Your task to perform on an android device: Open eBay Image 0: 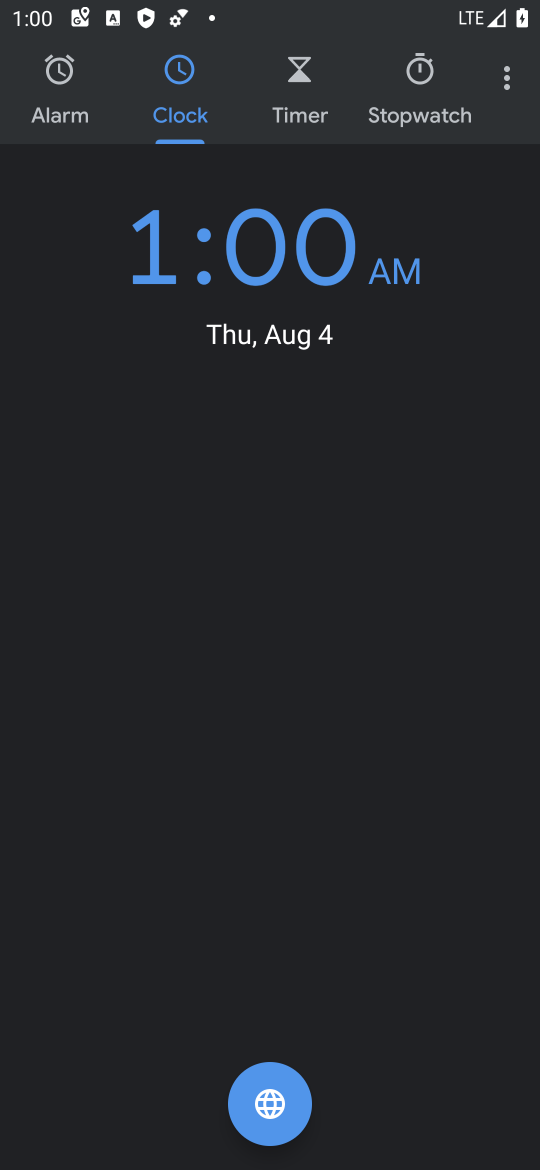
Step 0: press home button
Your task to perform on an android device: Open eBay Image 1: 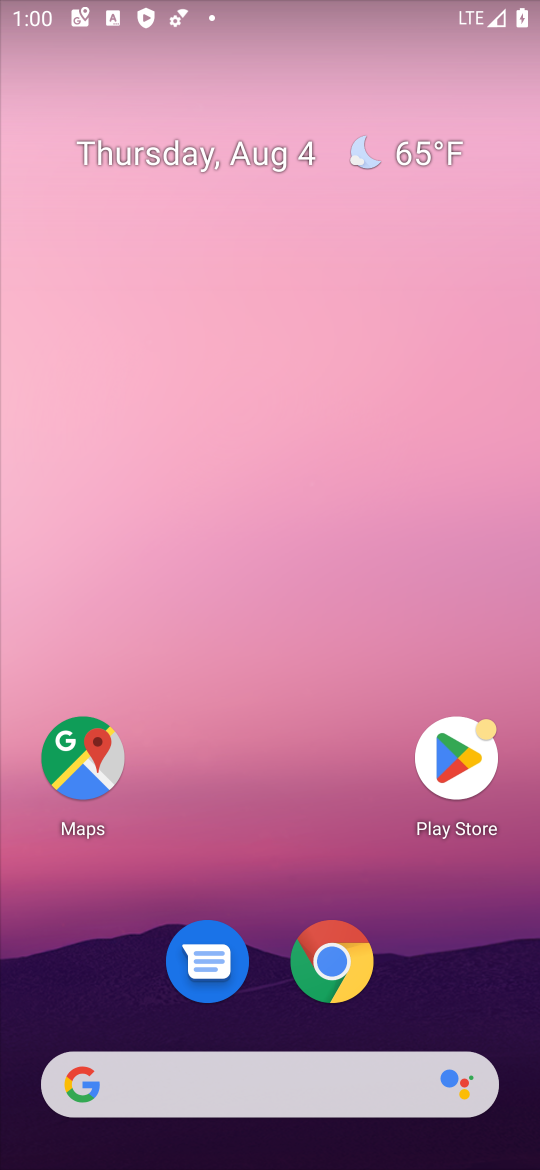
Step 1: click (391, 1106)
Your task to perform on an android device: Open eBay Image 2: 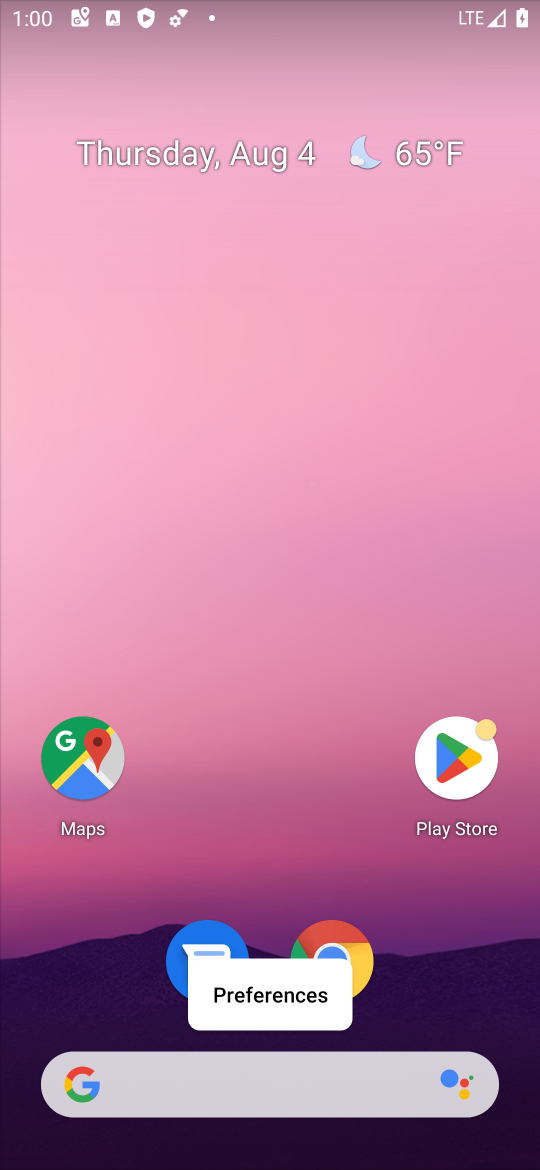
Step 2: click (366, 1101)
Your task to perform on an android device: Open eBay Image 3: 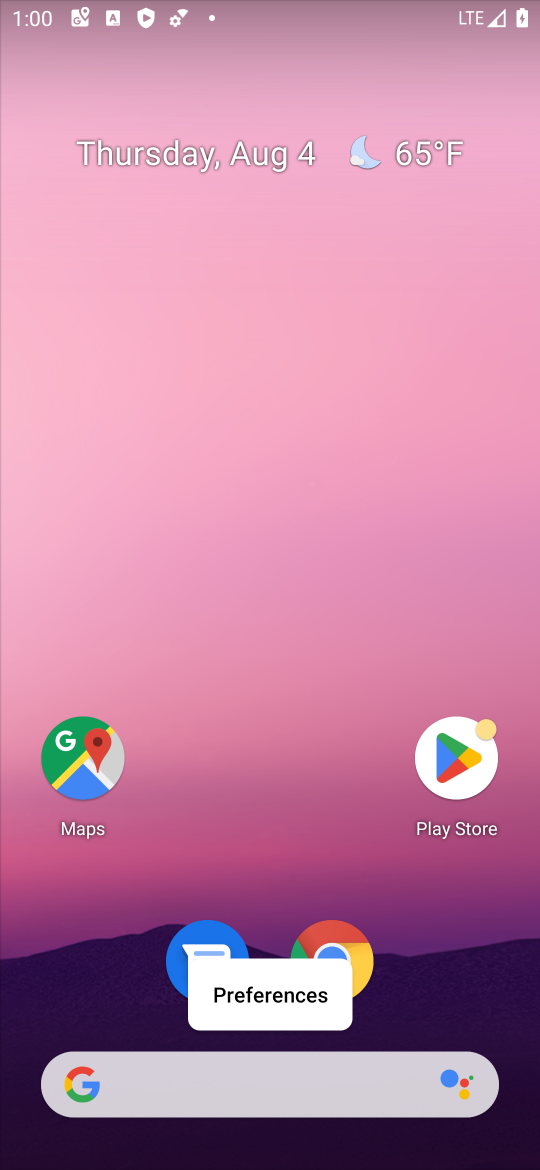
Step 3: click (295, 1089)
Your task to perform on an android device: Open eBay Image 4: 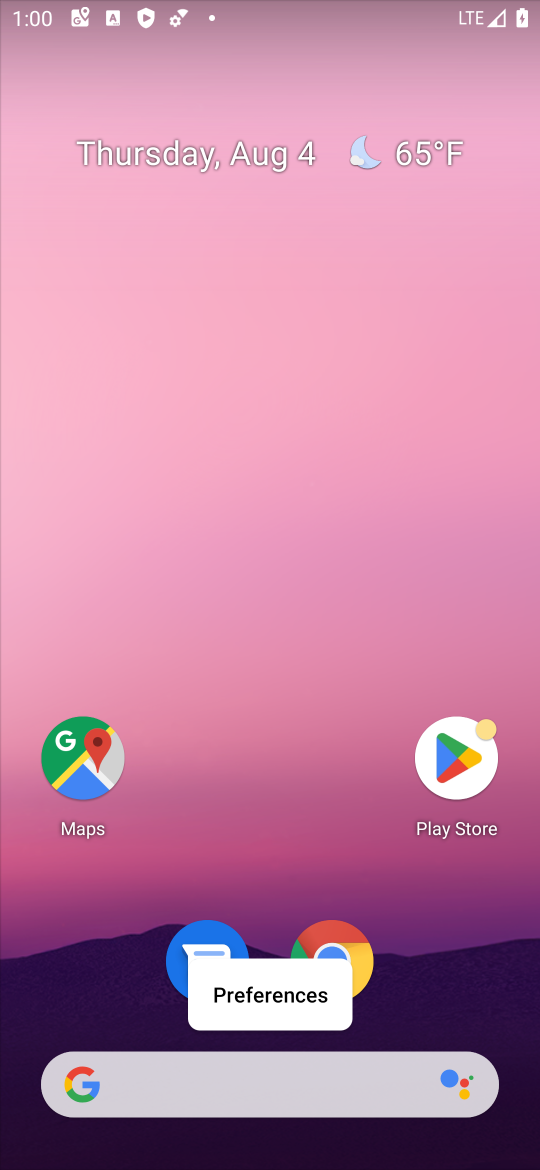
Step 4: click (292, 1082)
Your task to perform on an android device: Open eBay Image 5: 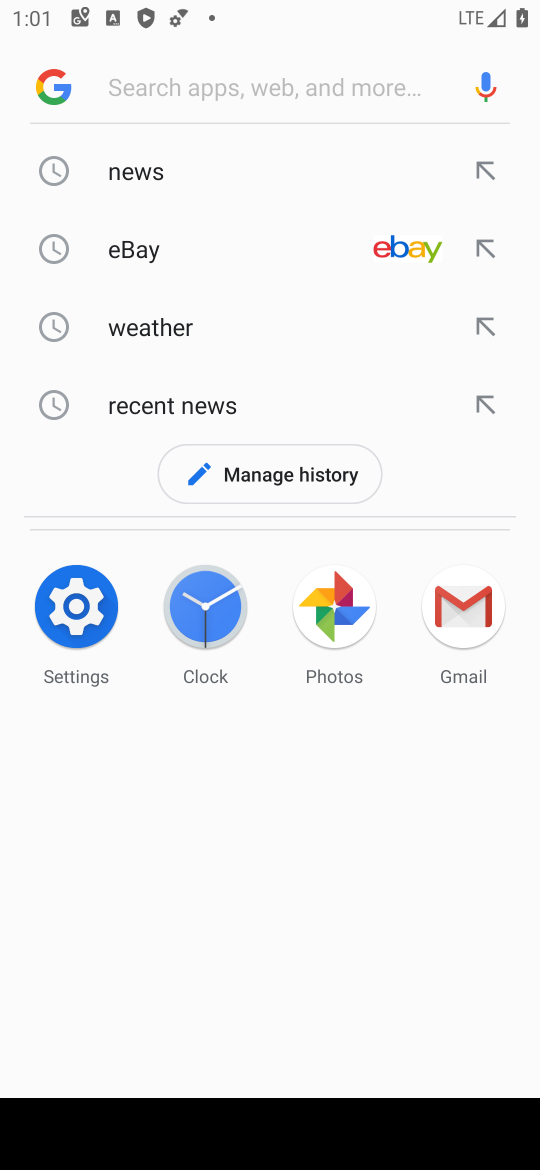
Step 5: click (318, 245)
Your task to perform on an android device: Open eBay Image 6: 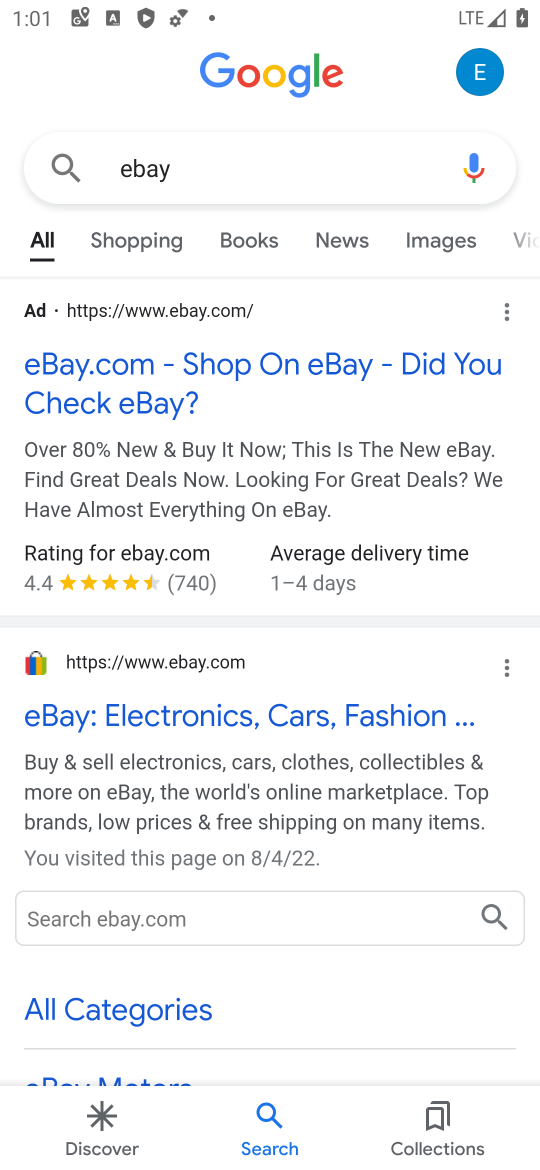
Step 6: click (154, 715)
Your task to perform on an android device: Open eBay Image 7: 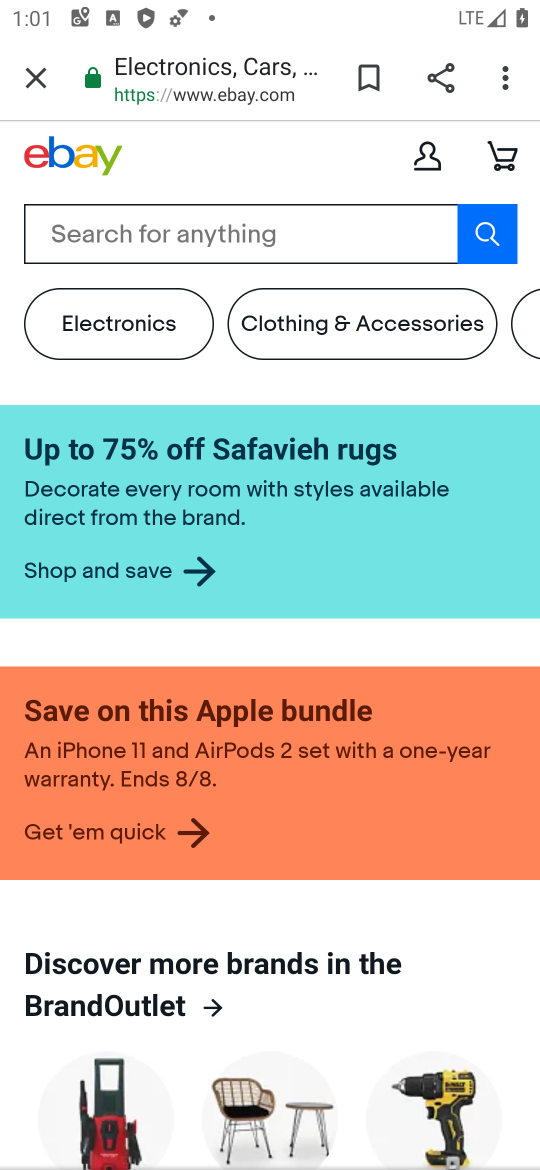
Step 7: task complete